Your task to perform on an android device: Go to Amazon Image 0: 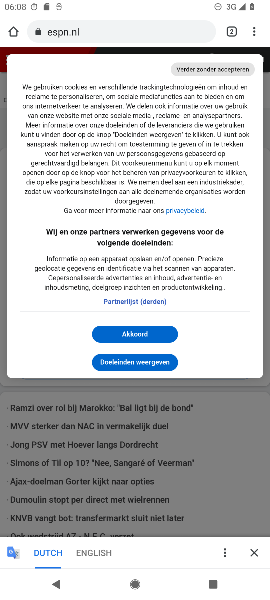
Step 0: press home button
Your task to perform on an android device: Go to Amazon Image 1: 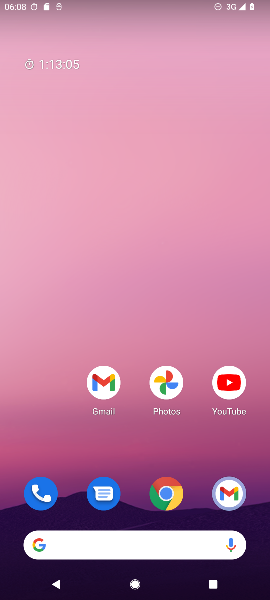
Step 1: drag from (60, 366) to (68, 40)
Your task to perform on an android device: Go to Amazon Image 2: 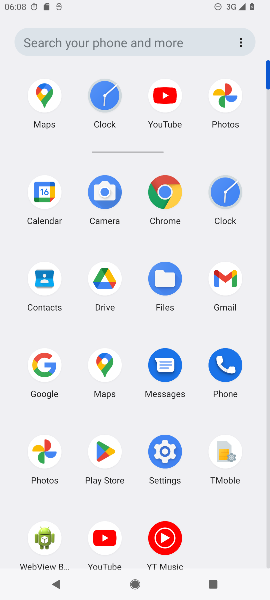
Step 2: click (163, 191)
Your task to perform on an android device: Go to Amazon Image 3: 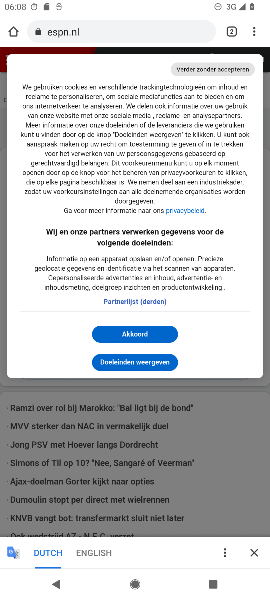
Step 3: click (131, 32)
Your task to perform on an android device: Go to Amazon Image 4: 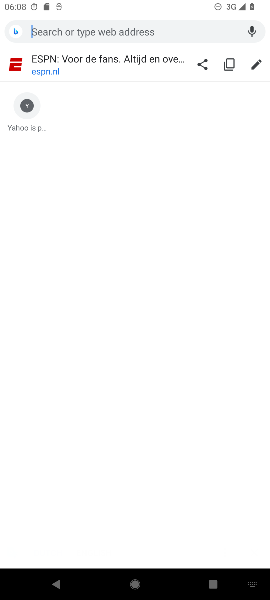
Step 4: type "amazon"
Your task to perform on an android device: Go to Amazon Image 5: 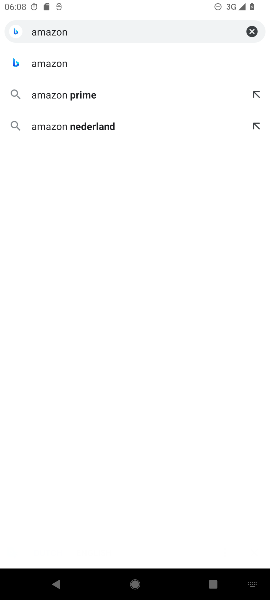
Step 5: click (76, 62)
Your task to perform on an android device: Go to Amazon Image 6: 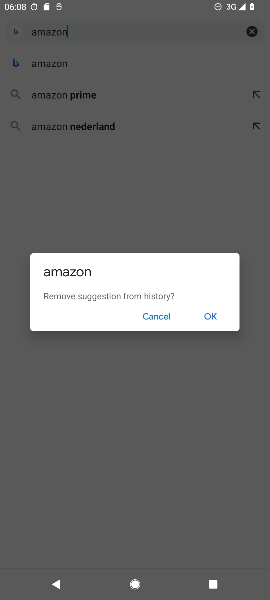
Step 6: click (215, 311)
Your task to perform on an android device: Go to Amazon Image 7: 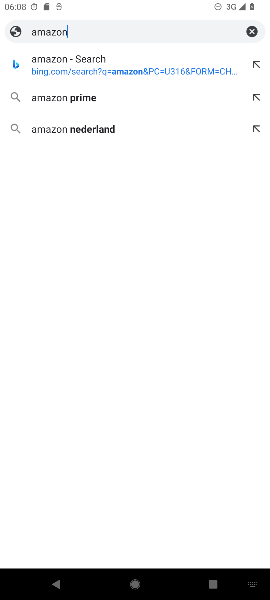
Step 7: click (133, 64)
Your task to perform on an android device: Go to Amazon Image 8: 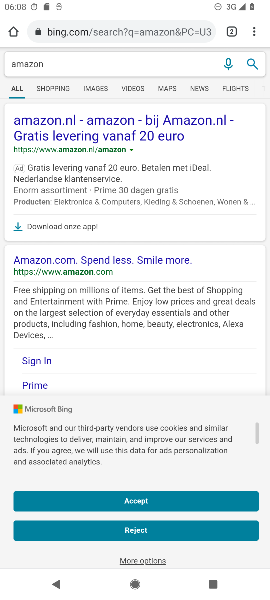
Step 8: task complete